Your task to perform on an android device: turn off improve location accuracy Image 0: 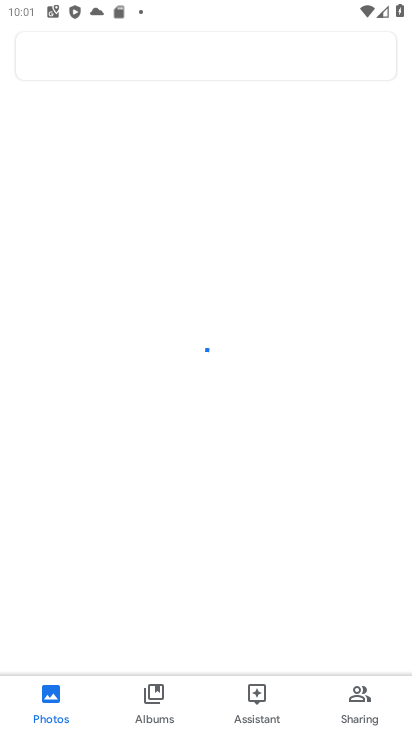
Step 0: drag from (233, 644) to (377, 140)
Your task to perform on an android device: turn off improve location accuracy Image 1: 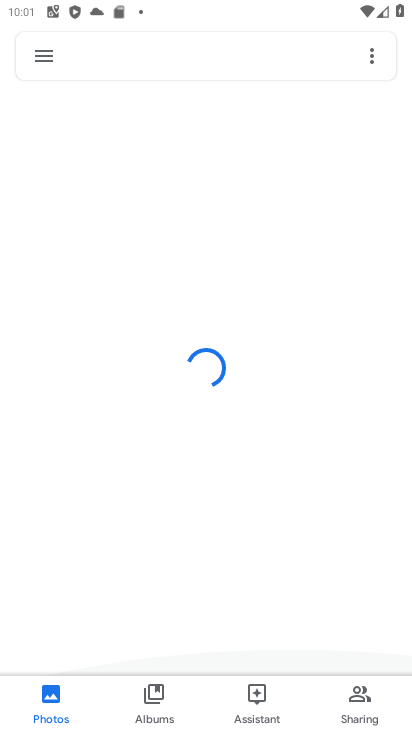
Step 1: press back button
Your task to perform on an android device: turn off improve location accuracy Image 2: 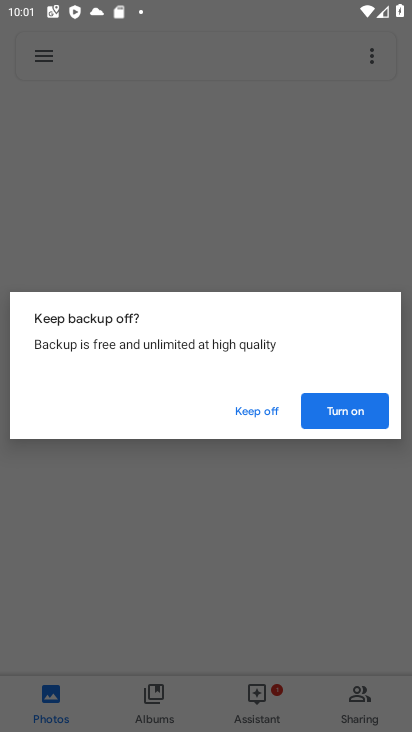
Step 2: press back button
Your task to perform on an android device: turn off improve location accuracy Image 3: 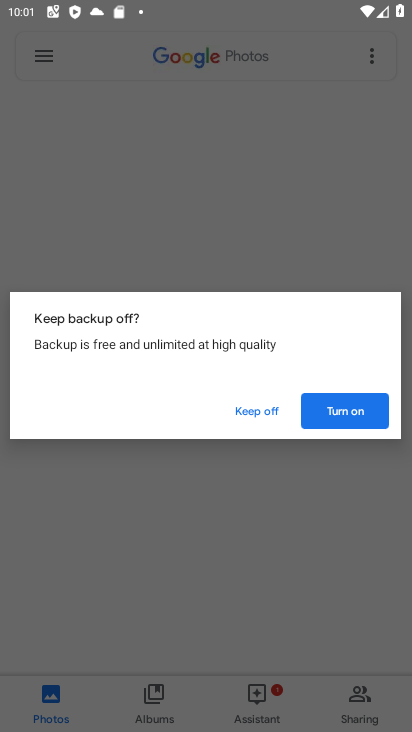
Step 3: press home button
Your task to perform on an android device: turn off improve location accuracy Image 4: 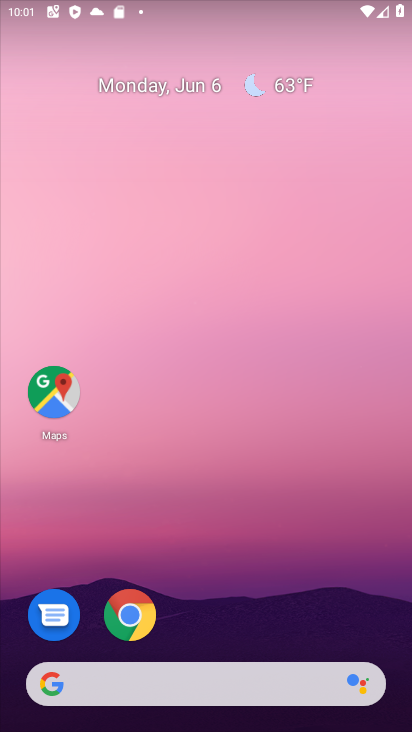
Step 4: drag from (247, 569) to (345, 0)
Your task to perform on an android device: turn off improve location accuracy Image 5: 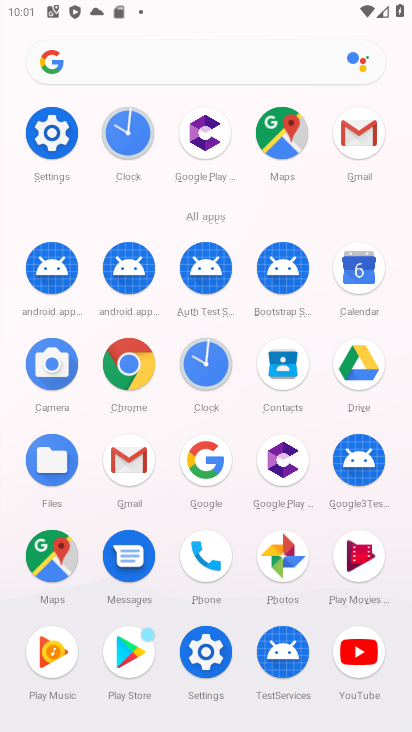
Step 5: click (68, 129)
Your task to perform on an android device: turn off improve location accuracy Image 6: 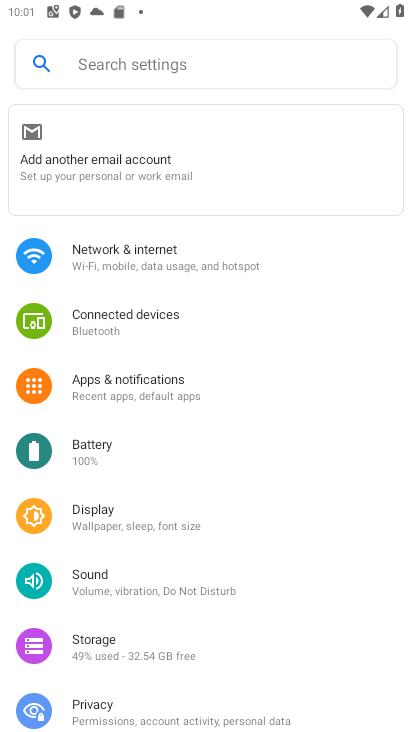
Step 6: click (98, 669)
Your task to perform on an android device: turn off improve location accuracy Image 7: 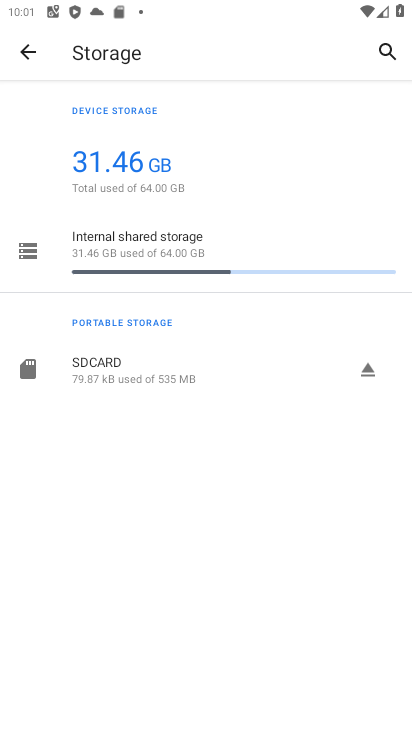
Step 7: press back button
Your task to perform on an android device: turn off improve location accuracy Image 8: 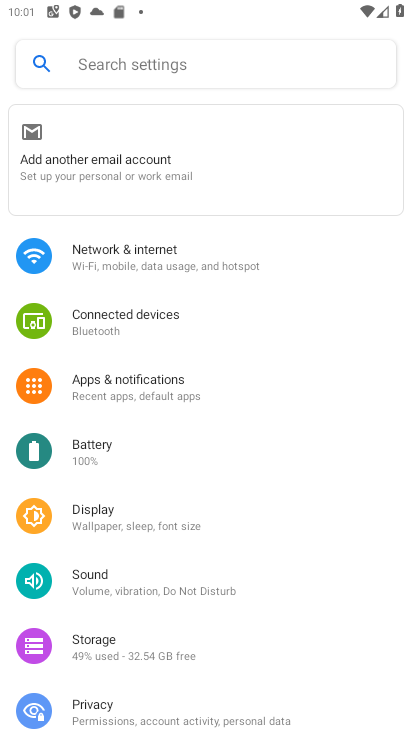
Step 8: drag from (123, 655) to (217, 205)
Your task to perform on an android device: turn off improve location accuracy Image 9: 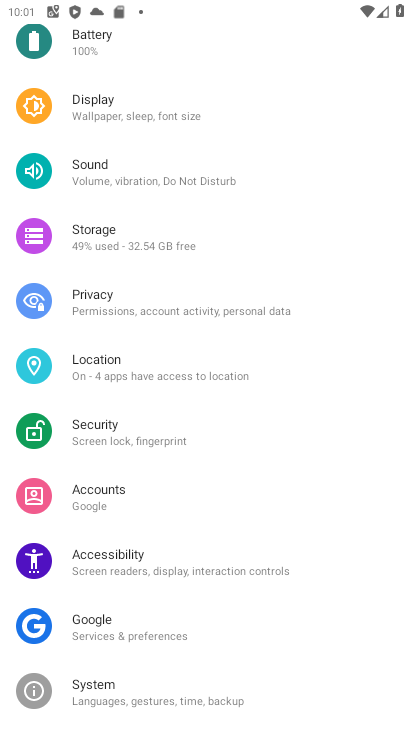
Step 9: click (115, 364)
Your task to perform on an android device: turn off improve location accuracy Image 10: 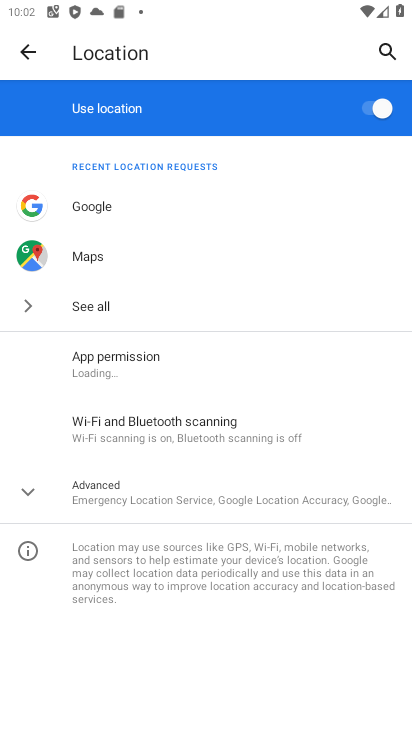
Step 10: click (236, 497)
Your task to perform on an android device: turn off improve location accuracy Image 11: 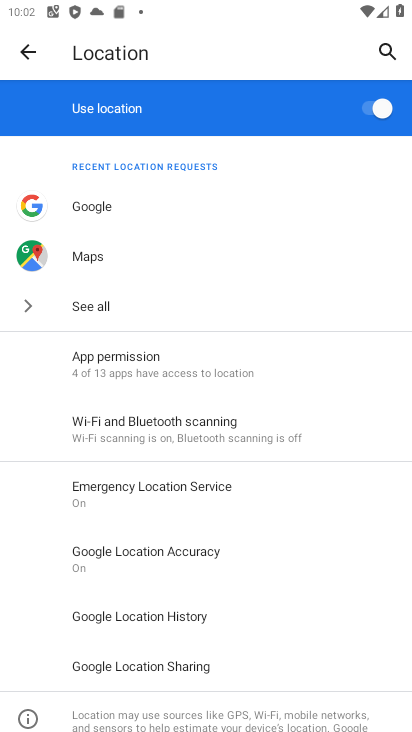
Step 11: click (159, 553)
Your task to perform on an android device: turn off improve location accuracy Image 12: 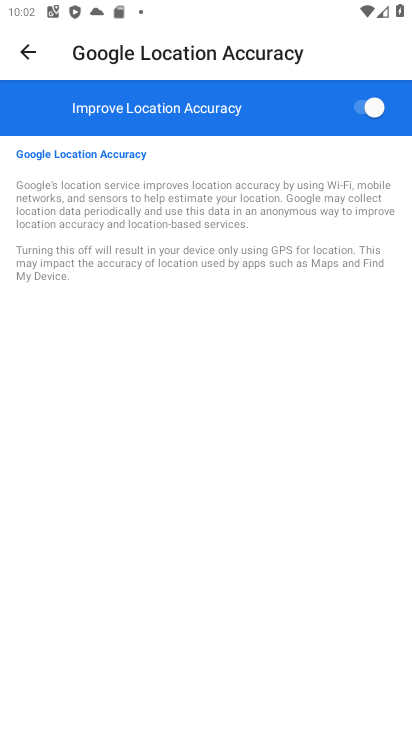
Step 12: click (374, 110)
Your task to perform on an android device: turn off improve location accuracy Image 13: 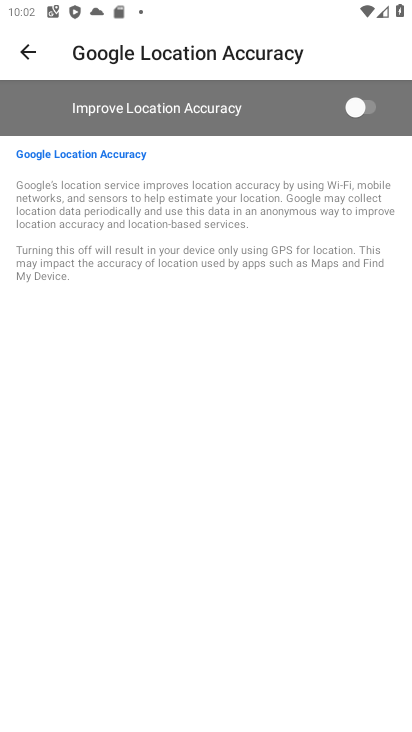
Step 13: task complete